Your task to perform on an android device: turn on location history Image 0: 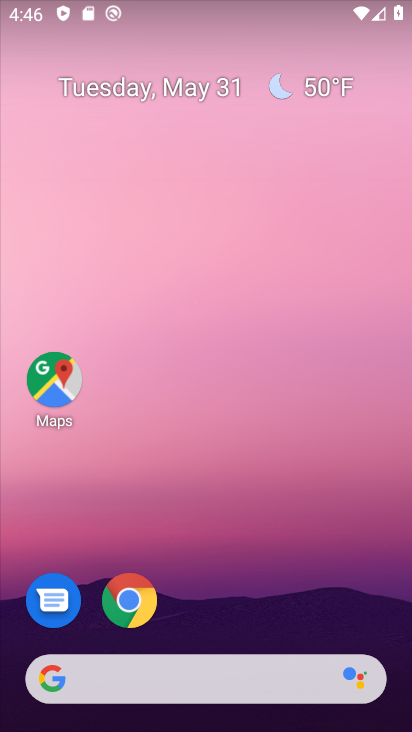
Step 0: drag from (299, 578) to (189, 37)
Your task to perform on an android device: turn on location history Image 1: 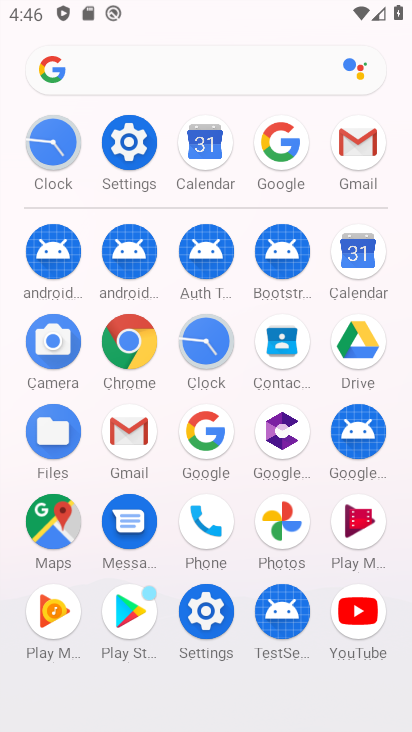
Step 1: click (130, 143)
Your task to perform on an android device: turn on location history Image 2: 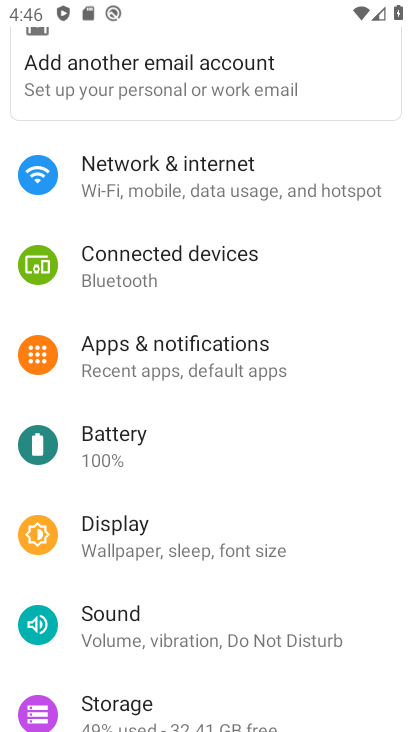
Step 2: drag from (172, 405) to (142, 236)
Your task to perform on an android device: turn on location history Image 3: 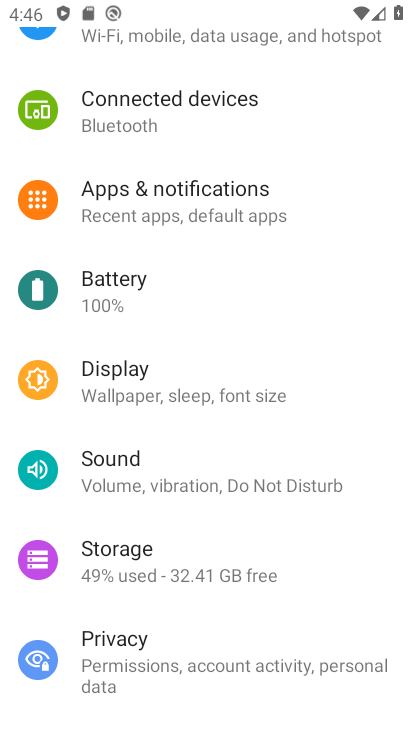
Step 3: drag from (166, 421) to (166, 281)
Your task to perform on an android device: turn on location history Image 4: 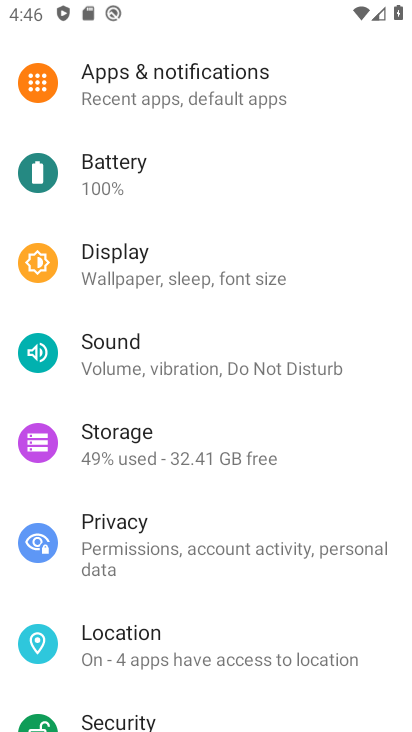
Step 4: click (114, 642)
Your task to perform on an android device: turn on location history Image 5: 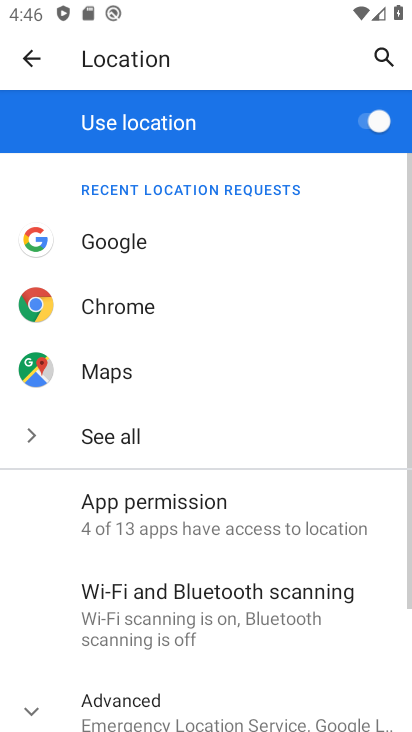
Step 5: drag from (217, 555) to (157, 188)
Your task to perform on an android device: turn on location history Image 6: 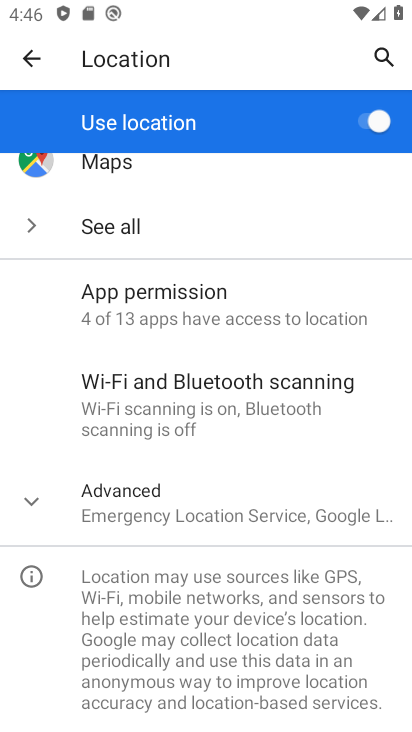
Step 6: click (236, 518)
Your task to perform on an android device: turn on location history Image 7: 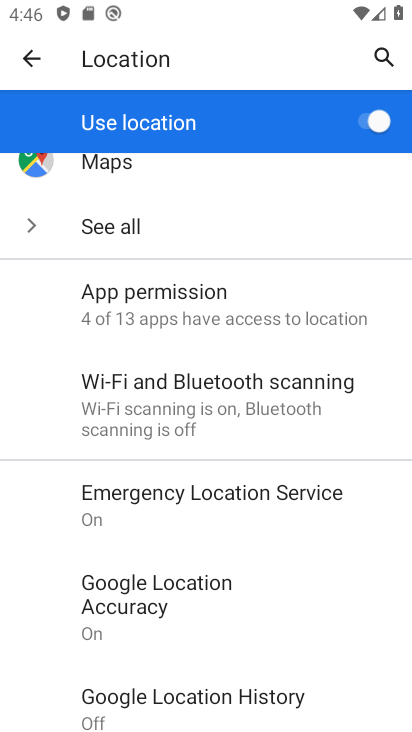
Step 7: drag from (185, 652) to (186, 531)
Your task to perform on an android device: turn on location history Image 8: 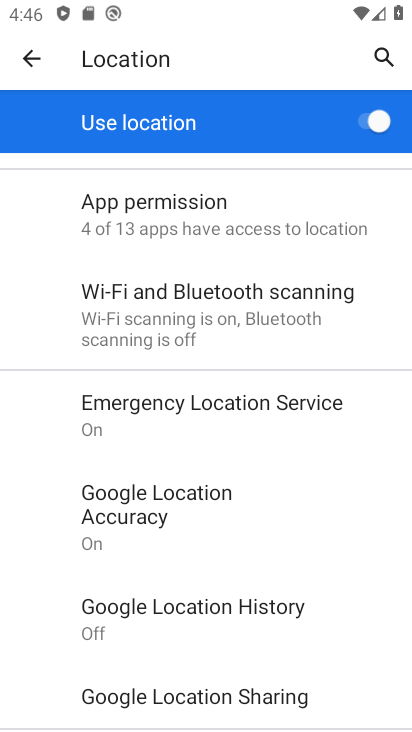
Step 8: click (182, 610)
Your task to perform on an android device: turn on location history Image 9: 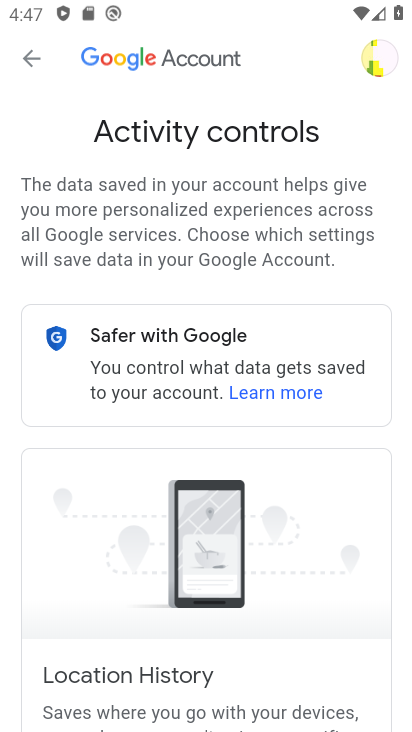
Step 9: drag from (243, 627) to (307, 395)
Your task to perform on an android device: turn on location history Image 10: 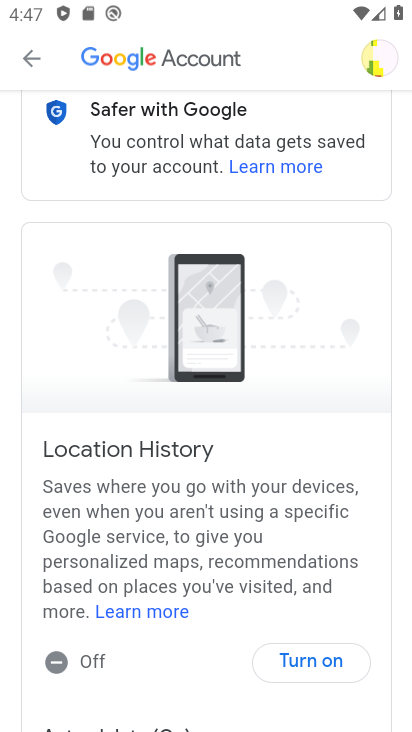
Step 10: click (301, 655)
Your task to perform on an android device: turn on location history Image 11: 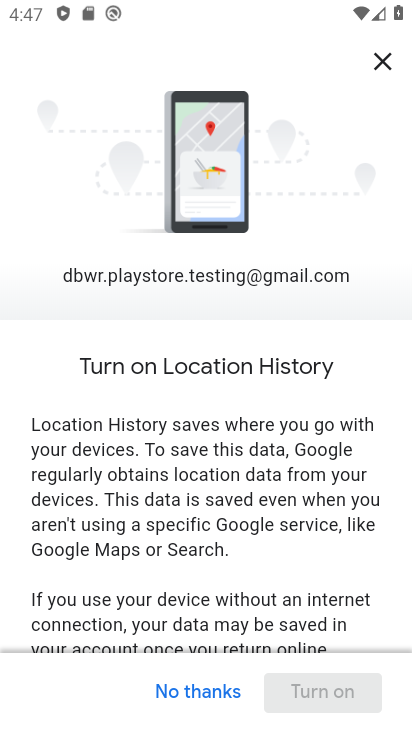
Step 11: drag from (279, 618) to (320, 398)
Your task to perform on an android device: turn on location history Image 12: 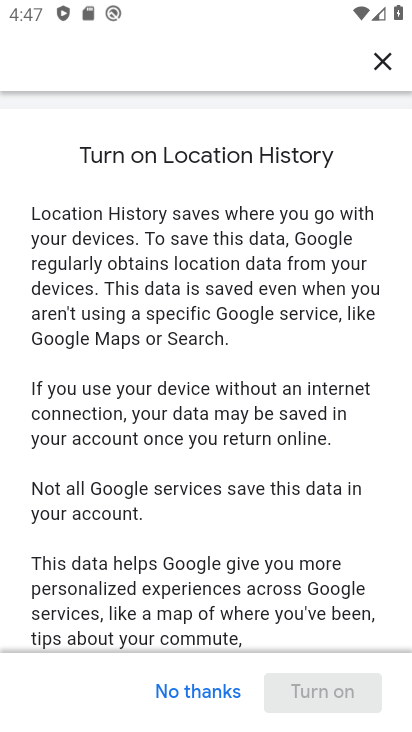
Step 12: drag from (250, 598) to (293, 217)
Your task to perform on an android device: turn on location history Image 13: 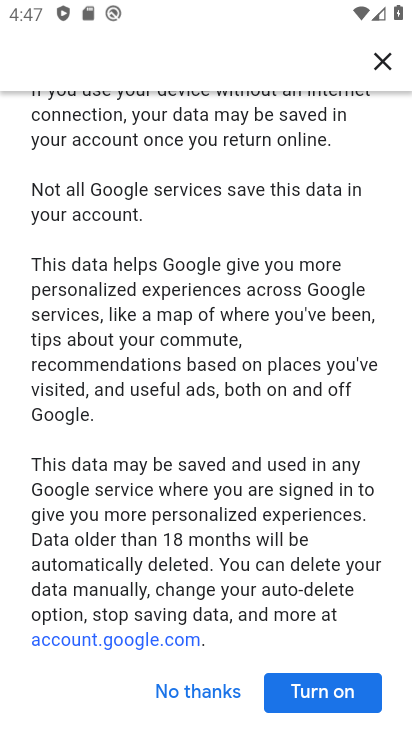
Step 13: click (333, 691)
Your task to perform on an android device: turn on location history Image 14: 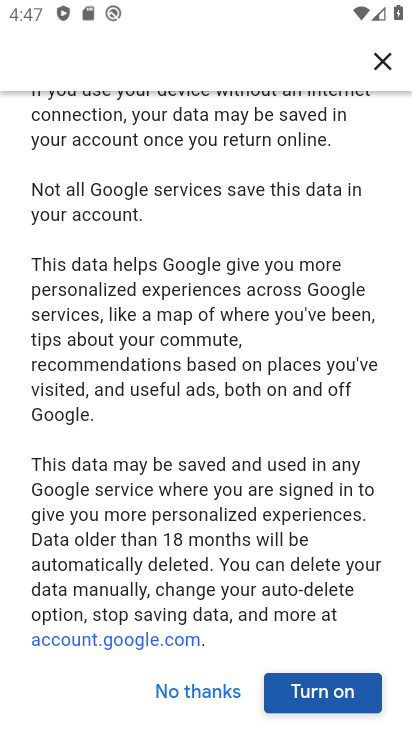
Step 14: click (333, 691)
Your task to perform on an android device: turn on location history Image 15: 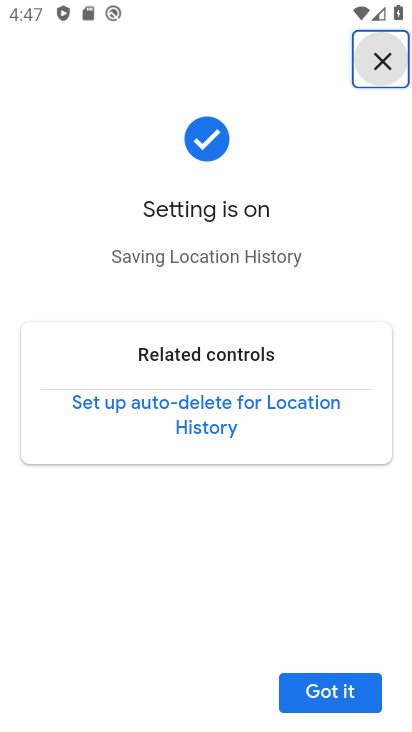
Step 15: task complete